Your task to perform on an android device: remove spam from my inbox in the gmail app Image 0: 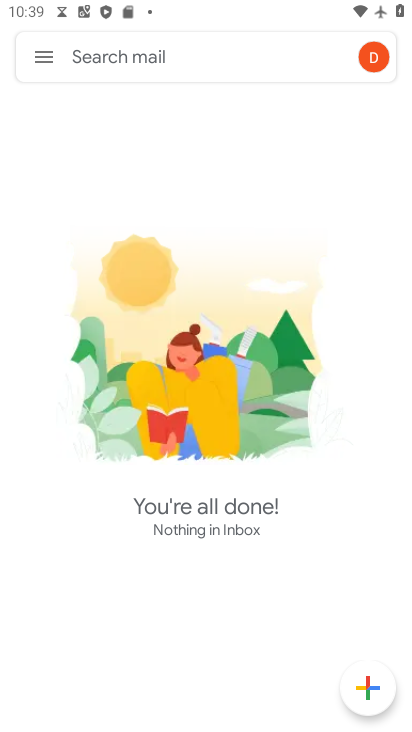
Step 0: click (35, 55)
Your task to perform on an android device: remove spam from my inbox in the gmail app Image 1: 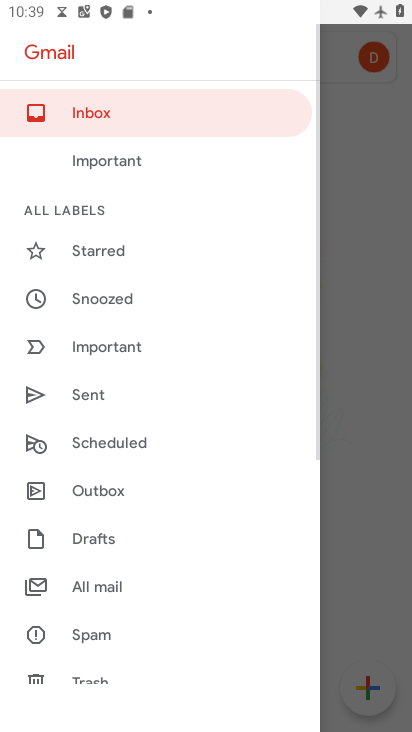
Step 1: drag from (143, 621) to (182, 240)
Your task to perform on an android device: remove spam from my inbox in the gmail app Image 2: 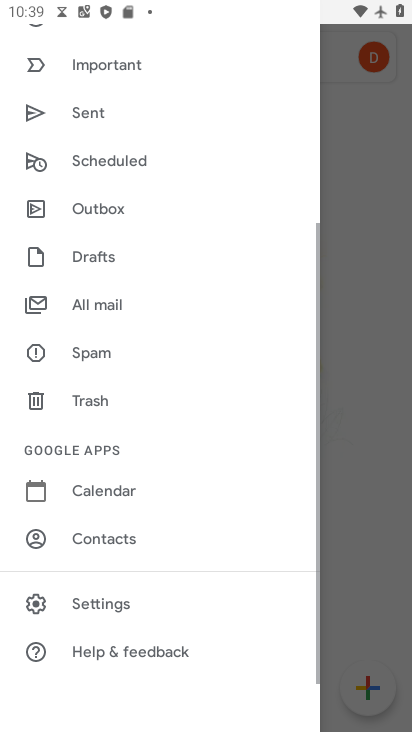
Step 2: click (108, 345)
Your task to perform on an android device: remove spam from my inbox in the gmail app Image 3: 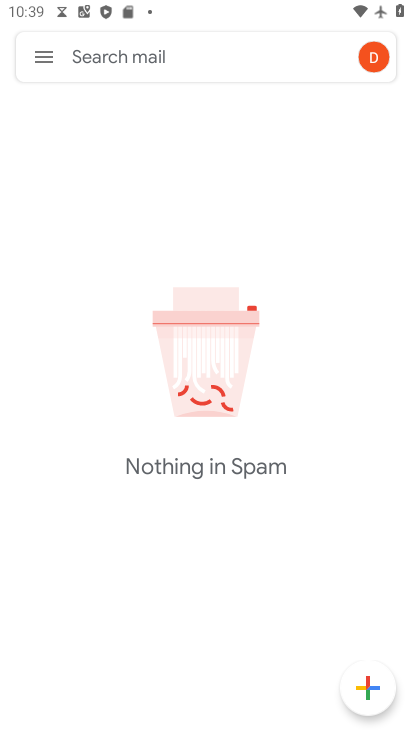
Step 3: task complete